Your task to perform on an android device: Show me the alarms in the clock app Image 0: 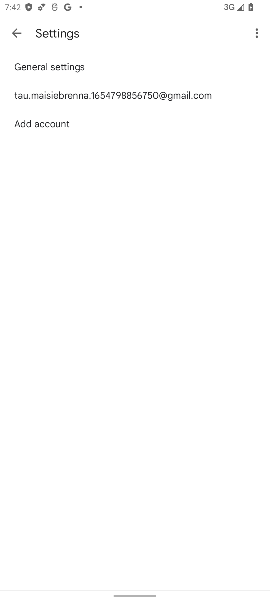
Step 0: press home button
Your task to perform on an android device: Show me the alarms in the clock app Image 1: 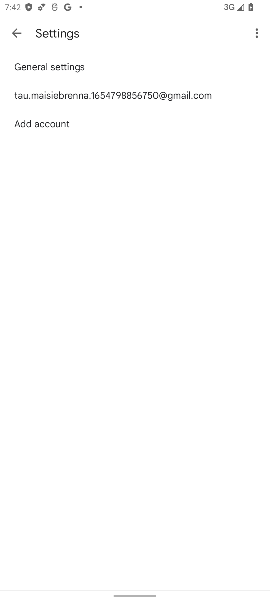
Step 1: press home button
Your task to perform on an android device: Show me the alarms in the clock app Image 2: 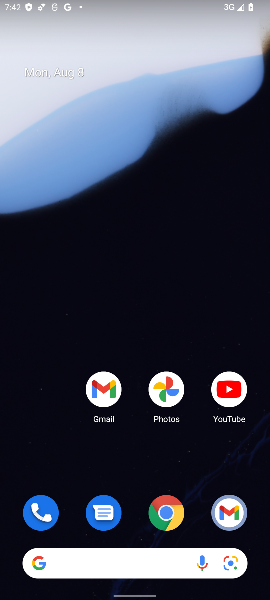
Step 2: drag from (92, 592) to (122, 196)
Your task to perform on an android device: Show me the alarms in the clock app Image 3: 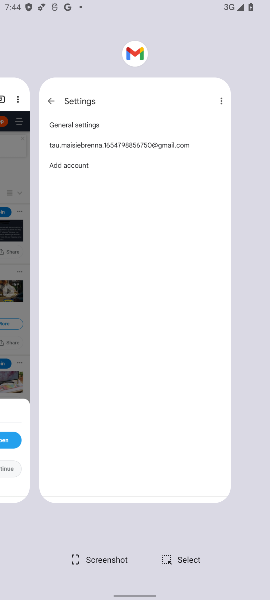
Step 3: press home button
Your task to perform on an android device: Show me the alarms in the clock app Image 4: 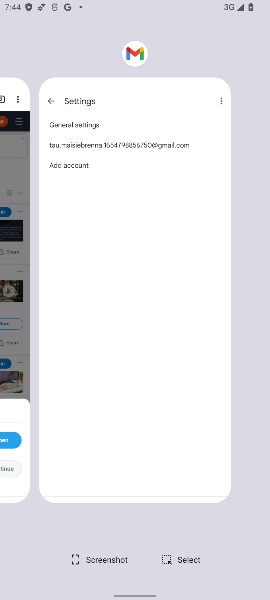
Step 4: press home button
Your task to perform on an android device: Show me the alarms in the clock app Image 5: 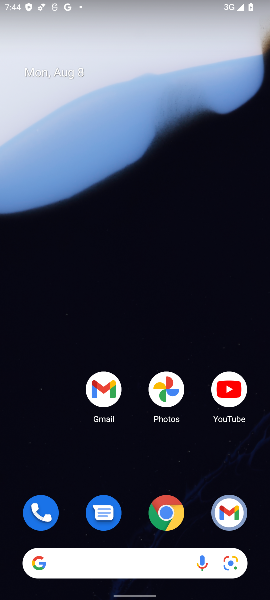
Step 5: drag from (171, 589) to (193, 223)
Your task to perform on an android device: Show me the alarms in the clock app Image 6: 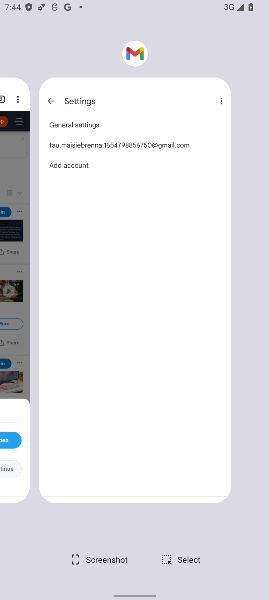
Step 6: press home button
Your task to perform on an android device: Show me the alarms in the clock app Image 7: 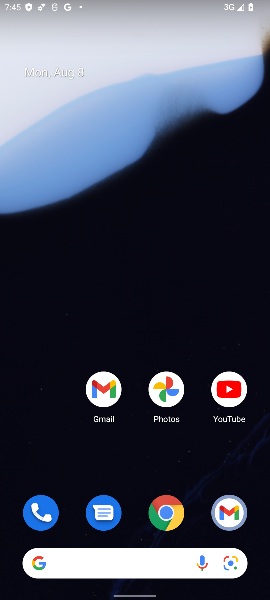
Step 7: drag from (151, 436) to (154, 229)
Your task to perform on an android device: Show me the alarms in the clock app Image 8: 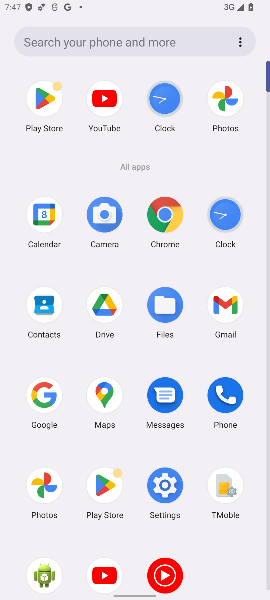
Step 8: click (220, 226)
Your task to perform on an android device: Show me the alarms in the clock app Image 9: 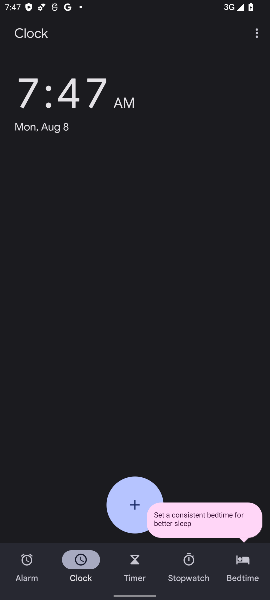
Step 9: click (30, 561)
Your task to perform on an android device: Show me the alarms in the clock app Image 10: 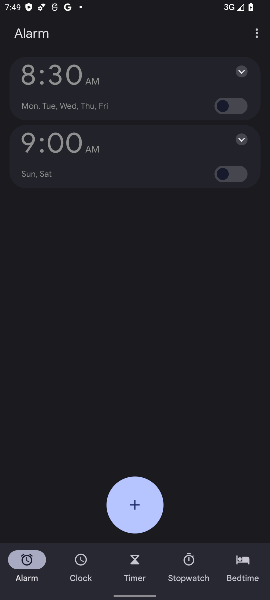
Step 10: task complete